Your task to perform on an android device: delete the emails in spam in the gmail app Image 0: 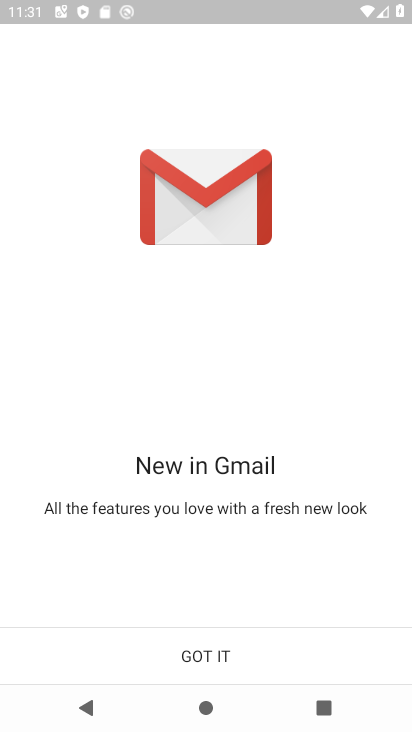
Step 0: click (190, 653)
Your task to perform on an android device: delete the emails in spam in the gmail app Image 1: 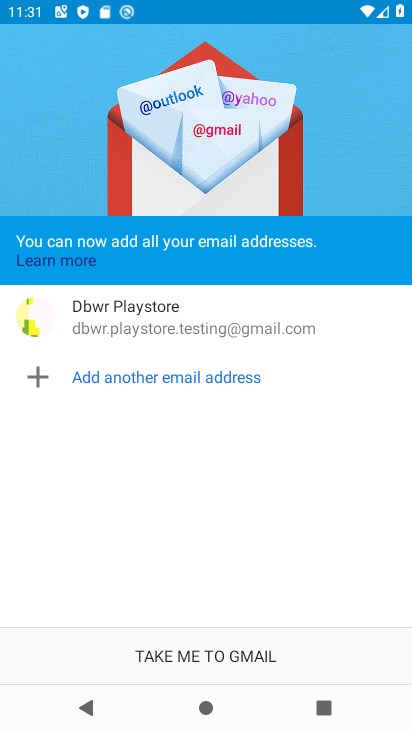
Step 1: click (188, 660)
Your task to perform on an android device: delete the emails in spam in the gmail app Image 2: 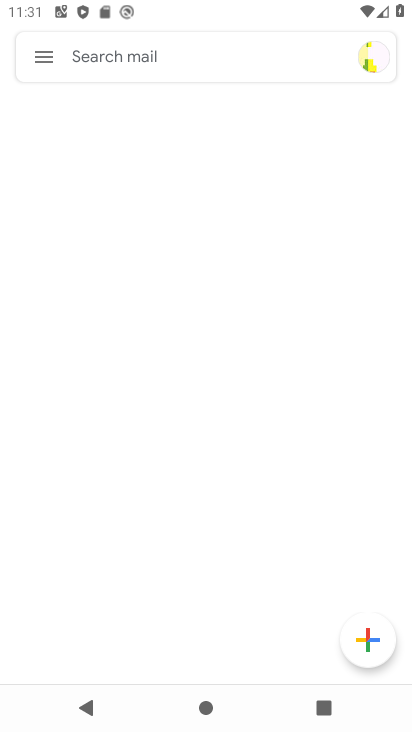
Step 2: click (45, 50)
Your task to perform on an android device: delete the emails in spam in the gmail app Image 3: 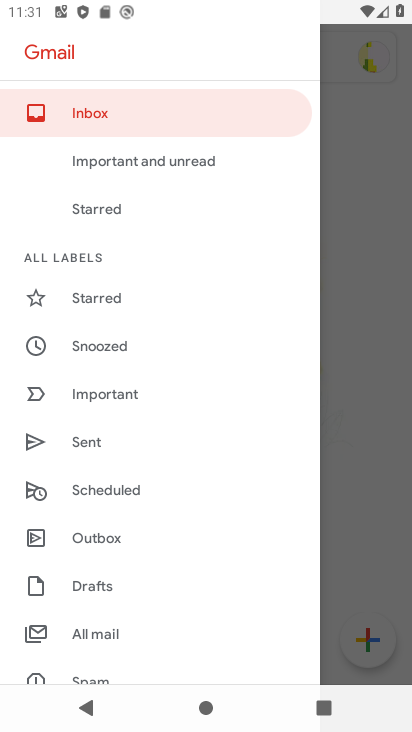
Step 3: drag from (79, 624) to (112, 278)
Your task to perform on an android device: delete the emails in spam in the gmail app Image 4: 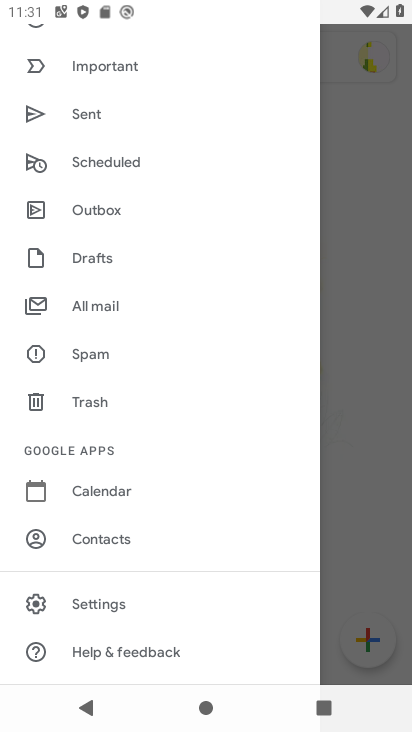
Step 4: click (80, 565)
Your task to perform on an android device: delete the emails in spam in the gmail app Image 5: 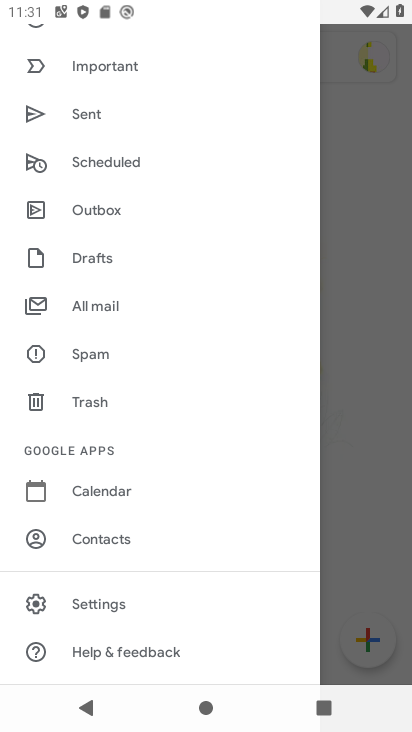
Step 5: click (67, 351)
Your task to perform on an android device: delete the emails in spam in the gmail app Image 6: 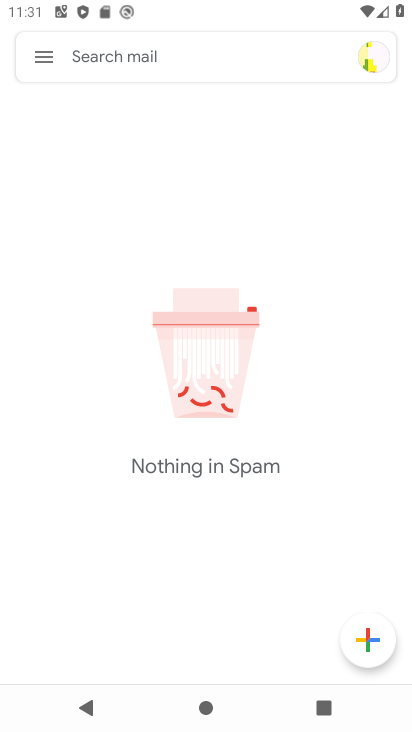
Step 6: task complete